Your task to perform on an android device: When is my next appointment? Image 0: 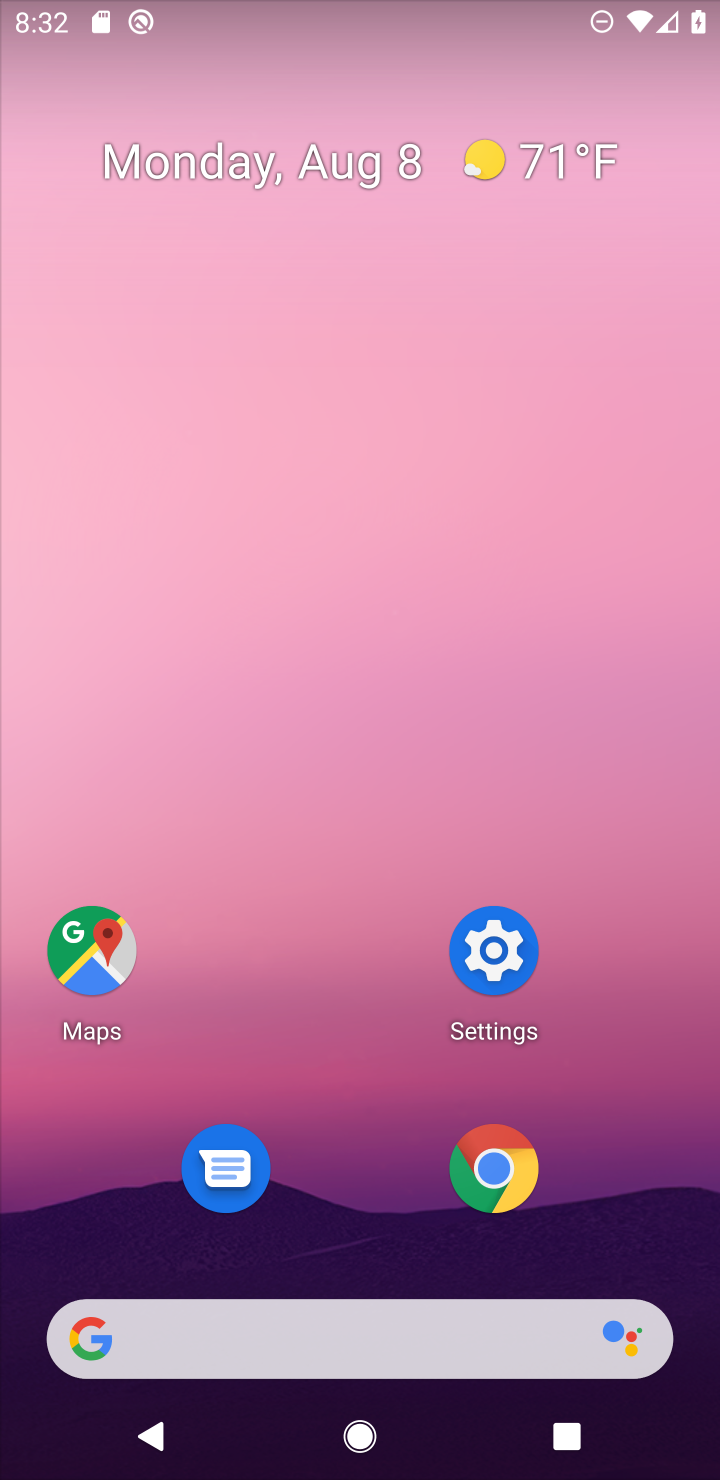
Step 0: press home button
Your task to perform on an android device: When is my next appointment? Image 1: 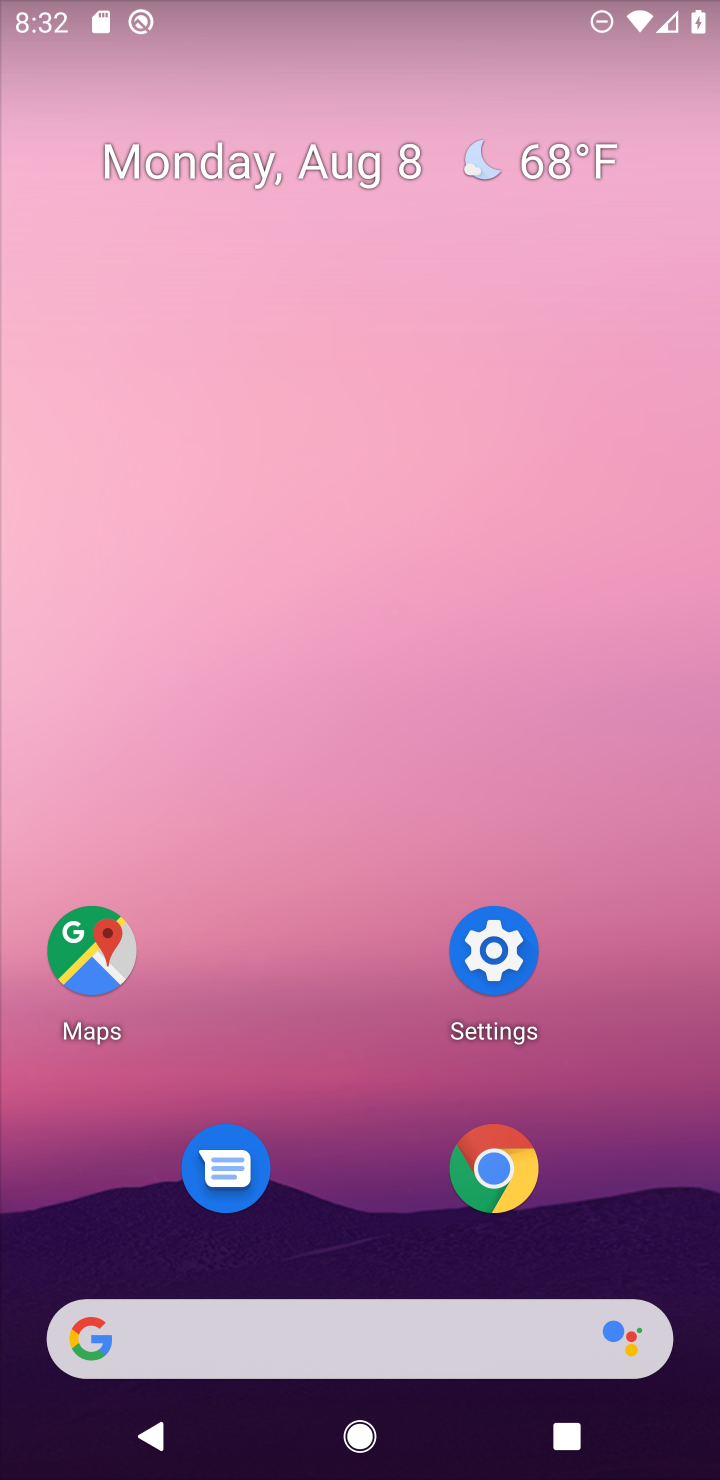
Step 1: drag from (343, 1234) to (629, 172)
Your task to perform on an android device: When is my next appointment? Image 2: 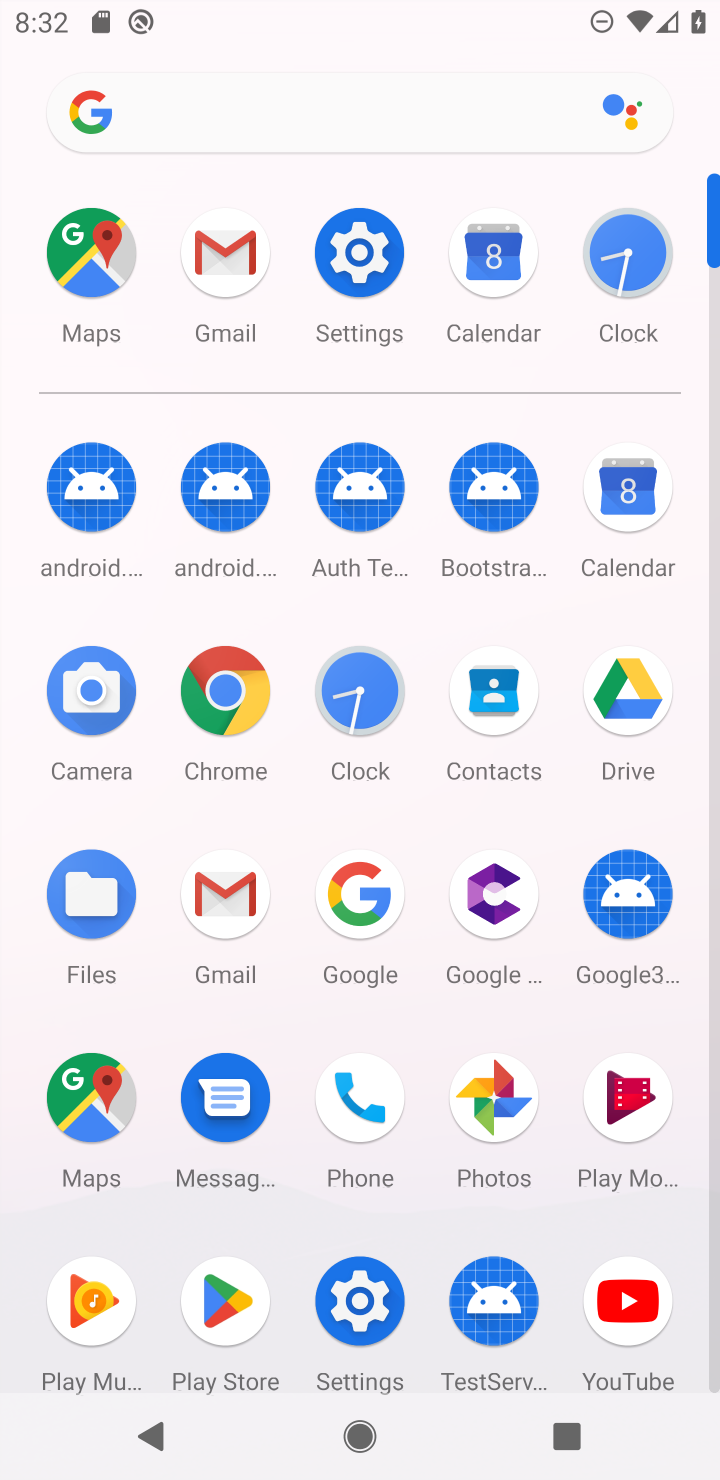
Step 2: click (625, 500)
Your task to perform on an android device: When is my next appointment? Image 3: 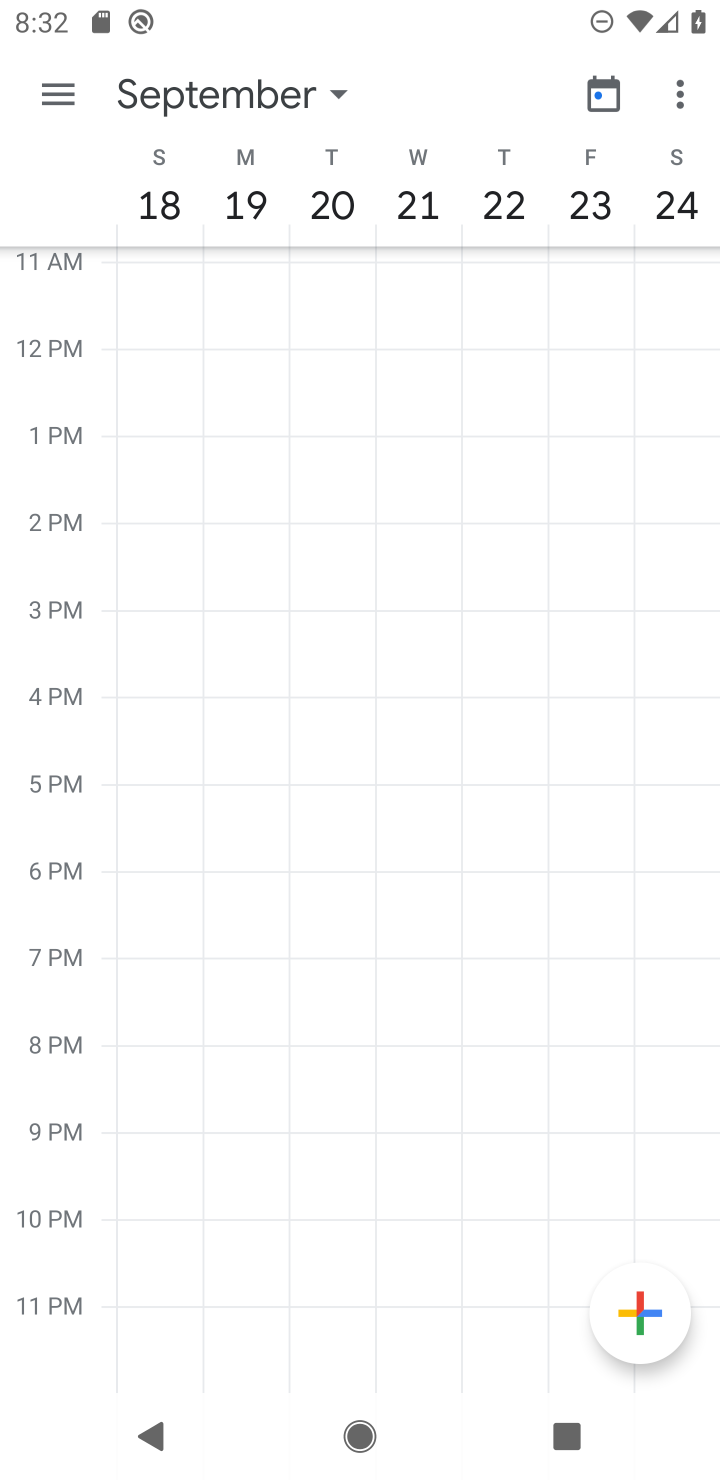
Step 3: click (190, 97)
Your task to perform on an android device: When is my next appointment? Image 4: 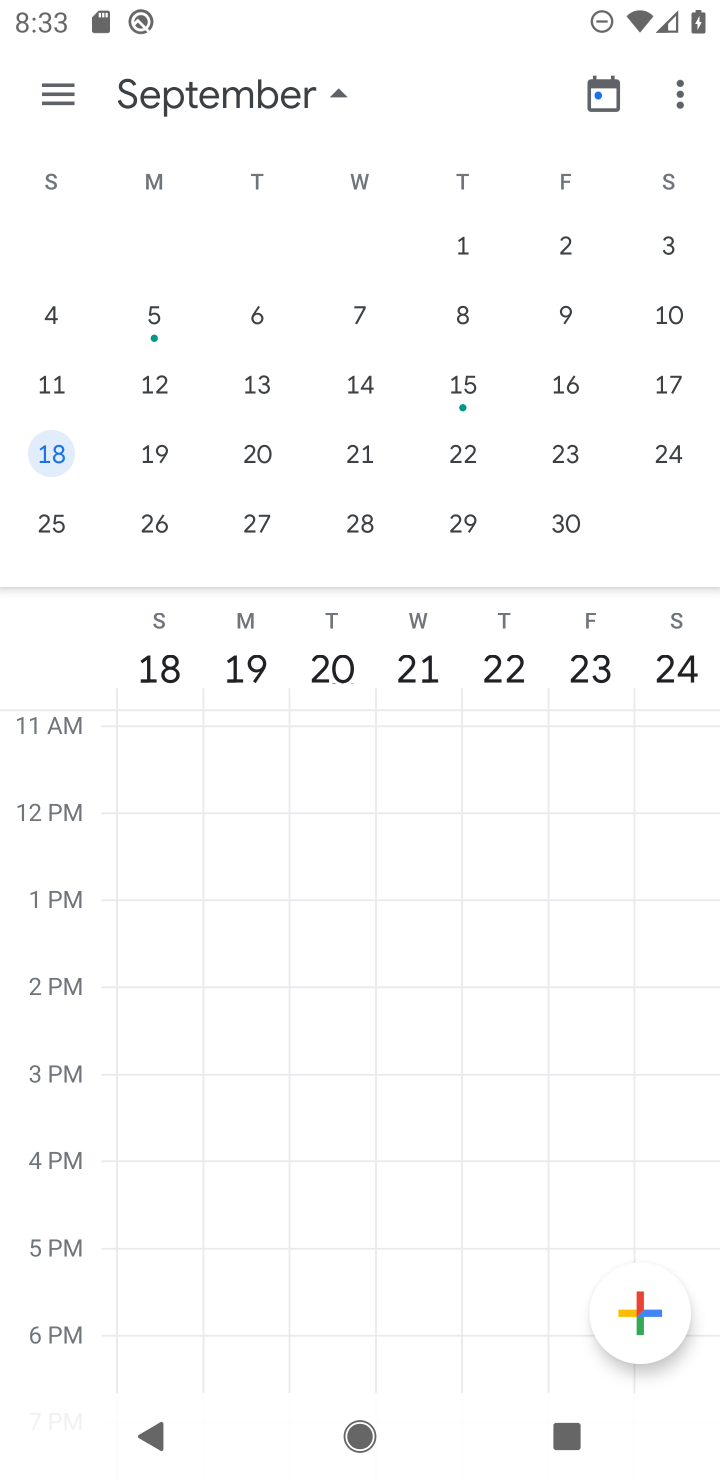
Step 4: drag from (95, 480) to (718, 465)
Your task to perform on an android device: When is my next appointment? Image 5: 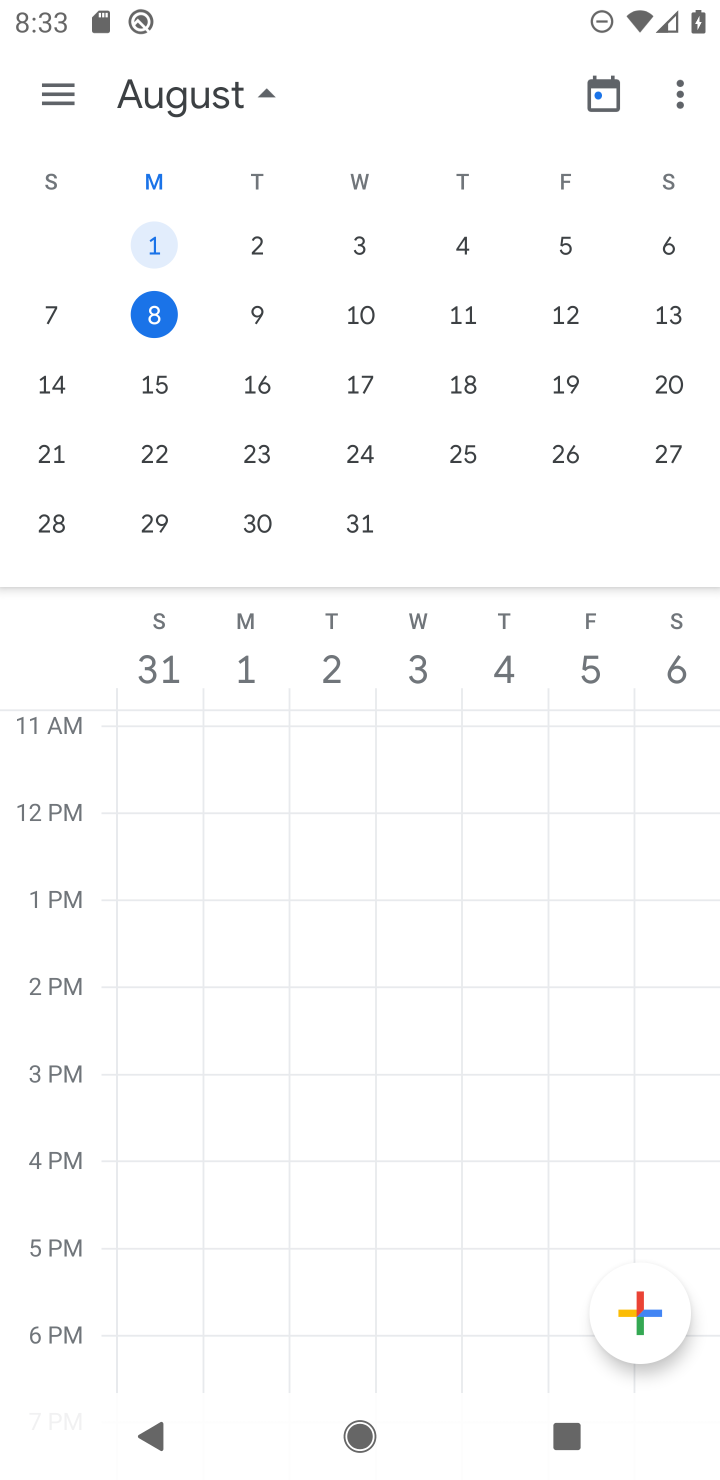
Step 5: click (158, 305)
Your task to perform on an android device: When is my next appointment? Image 6: 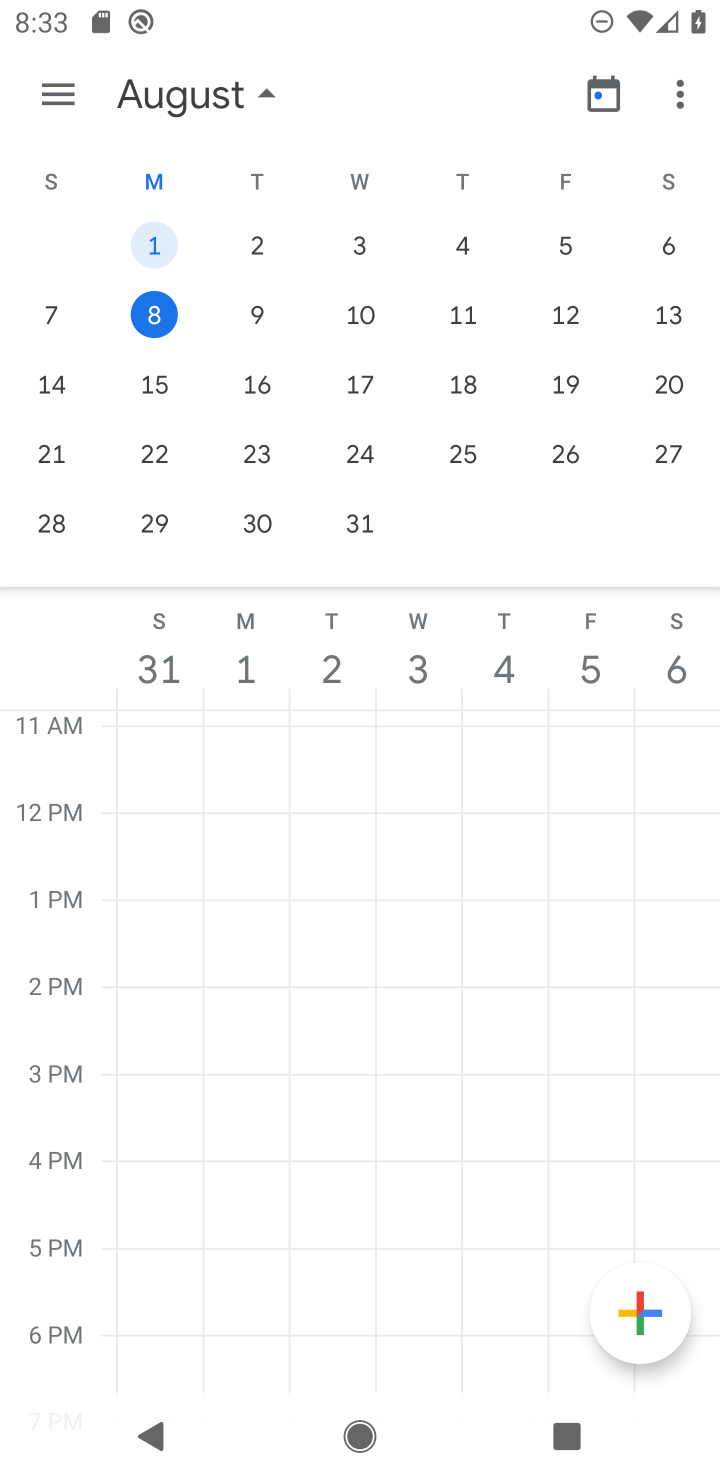
Step 6: click (150, 309)
Your task to perform on an android device: When is my next appointment? Image 7: 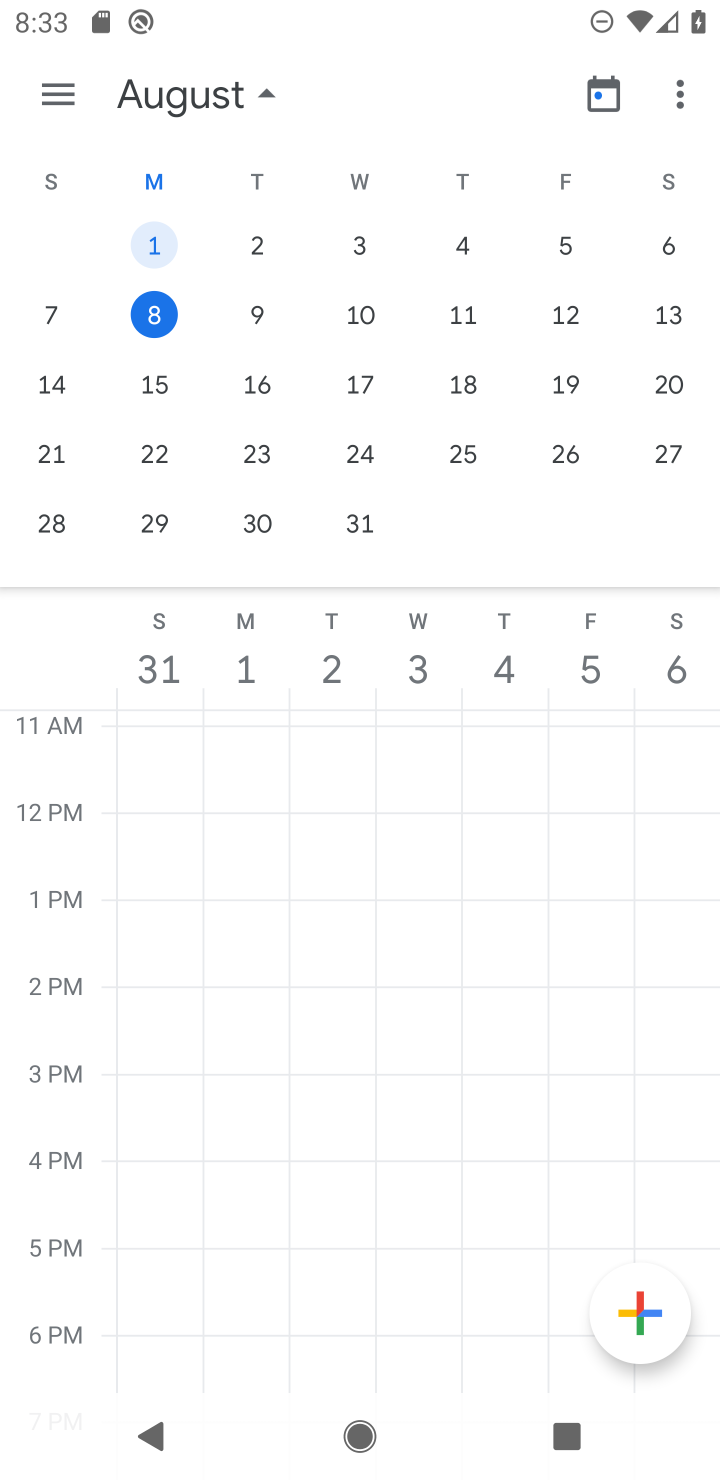
Step 7: click (182, 321)
Your task to perform on an android device: When is my next appointment? Image 8: 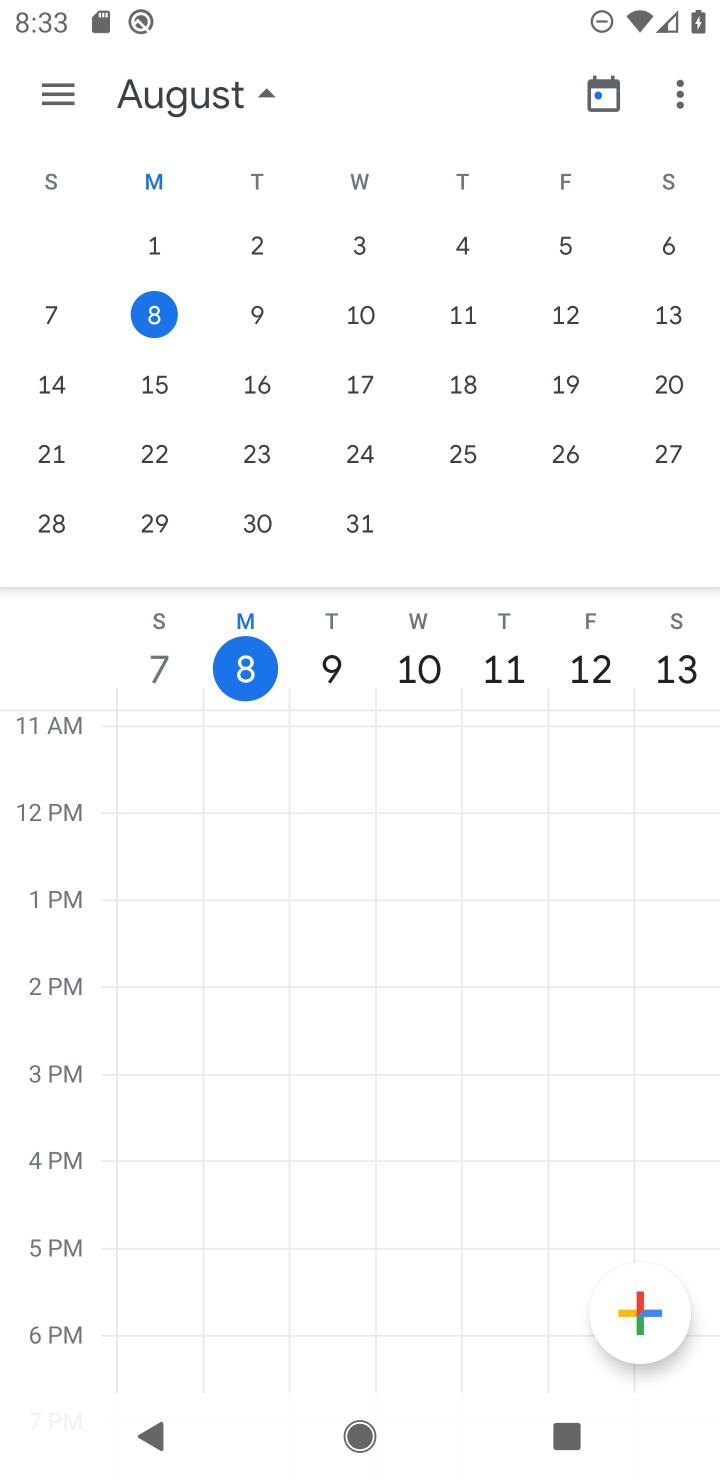
Step 8: click (52, 86)
Your task to perform on an android device: When is my next appointment? Image 9: 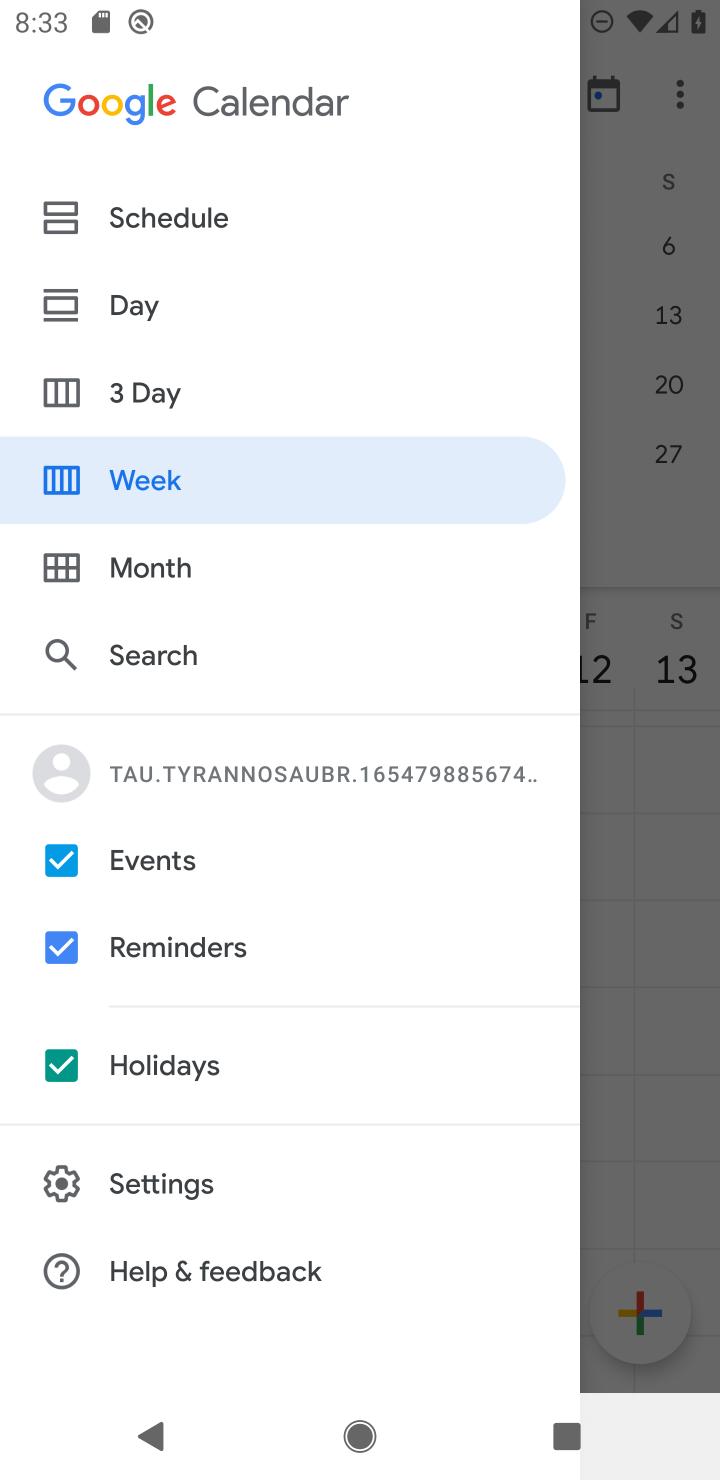
Step 9: click (211, 219)
Your task to perform on an android device: When is my next appointment? Image 10: 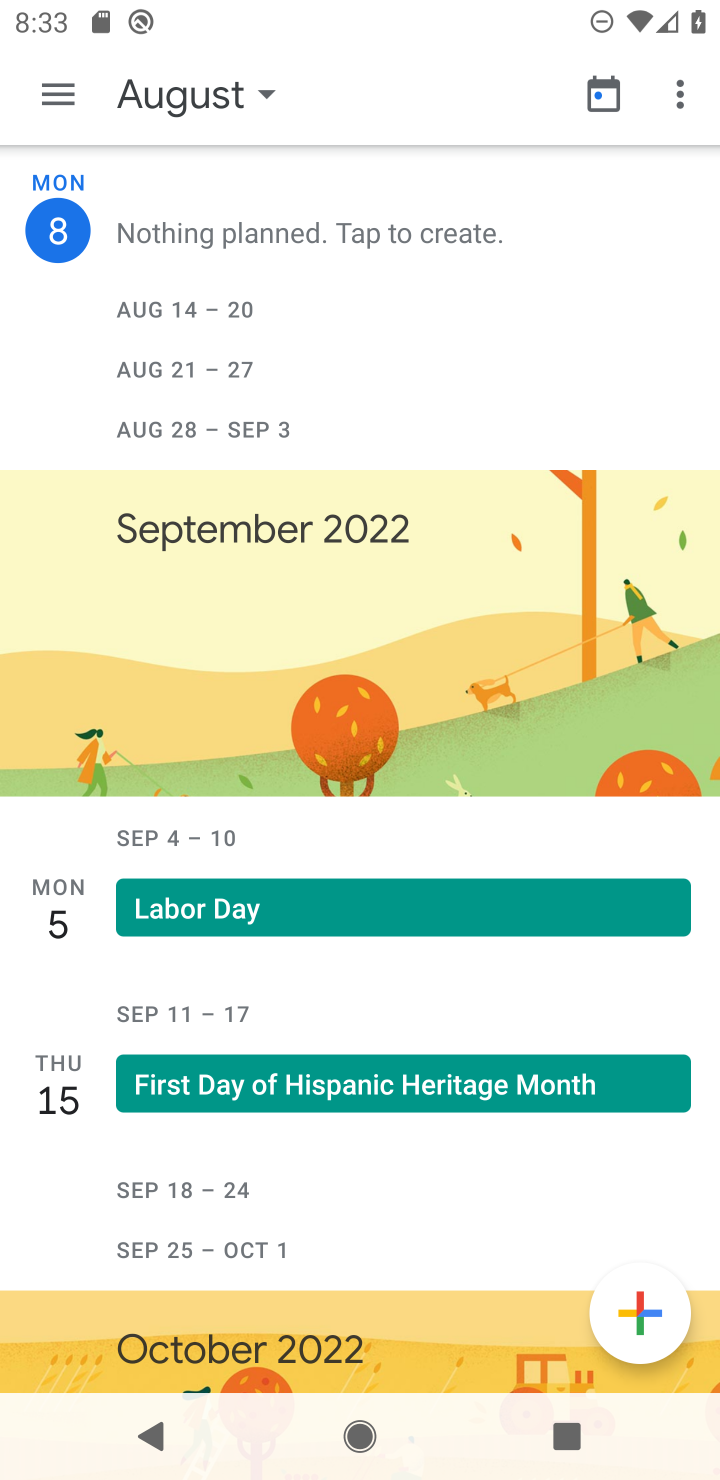
Step 10: task complete